Your task to perform on an android device: Empty the shopping cart on walmart.com. Image 0: 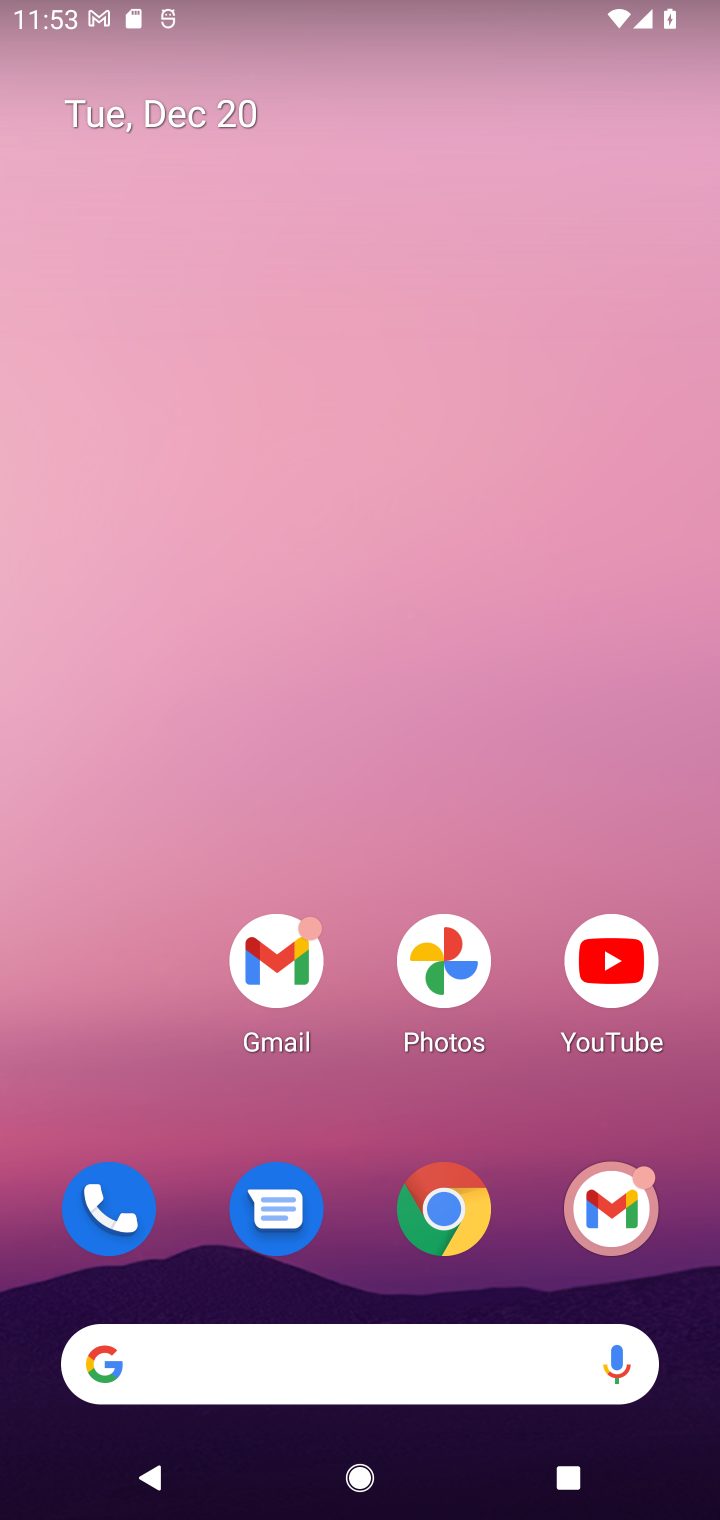
Step 0: click (458, 1233)
Your task to perform on an android device: Empty the shopping cart on walmart.com. Image 1: 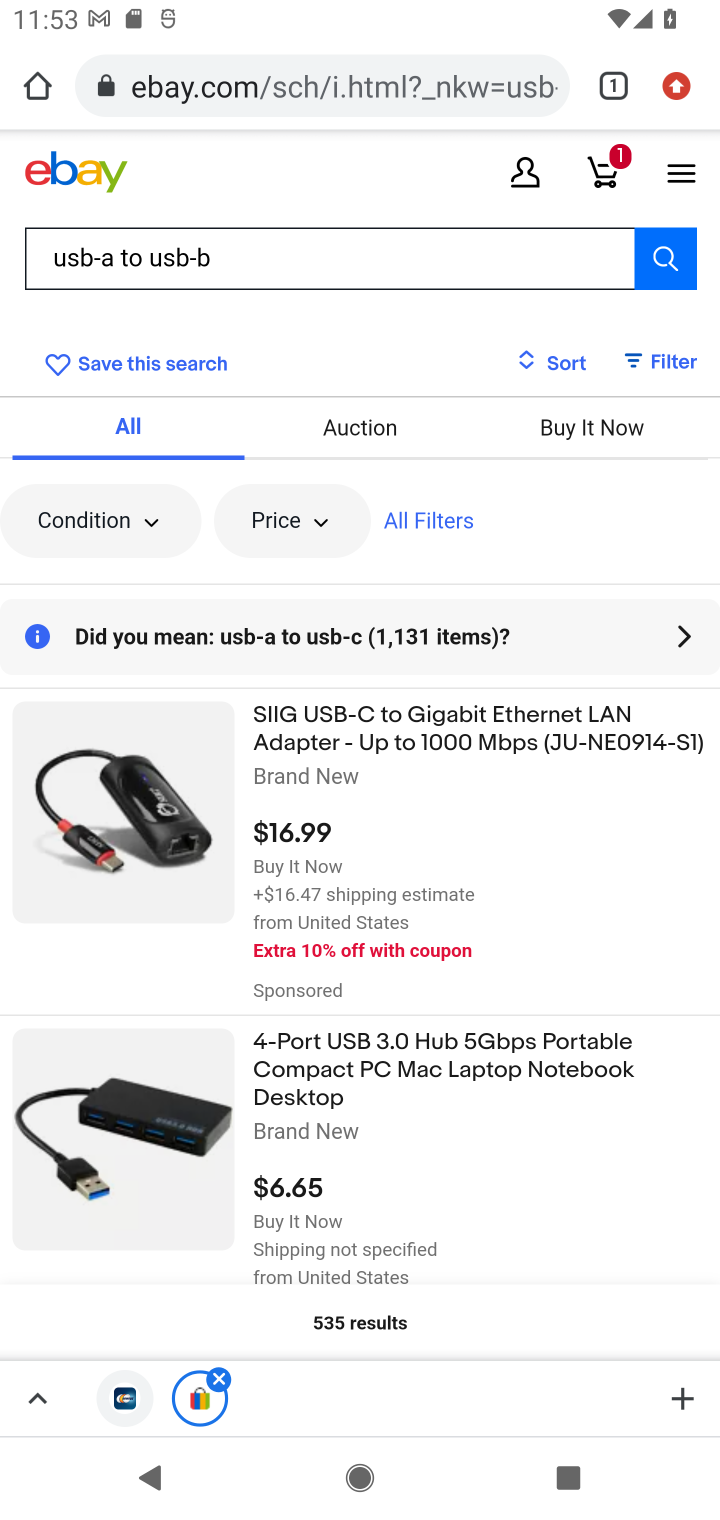
Step 1: click (239, 94)
Your task to perform on an android device: Empty the shopping cart on walmart.com. Image 2: 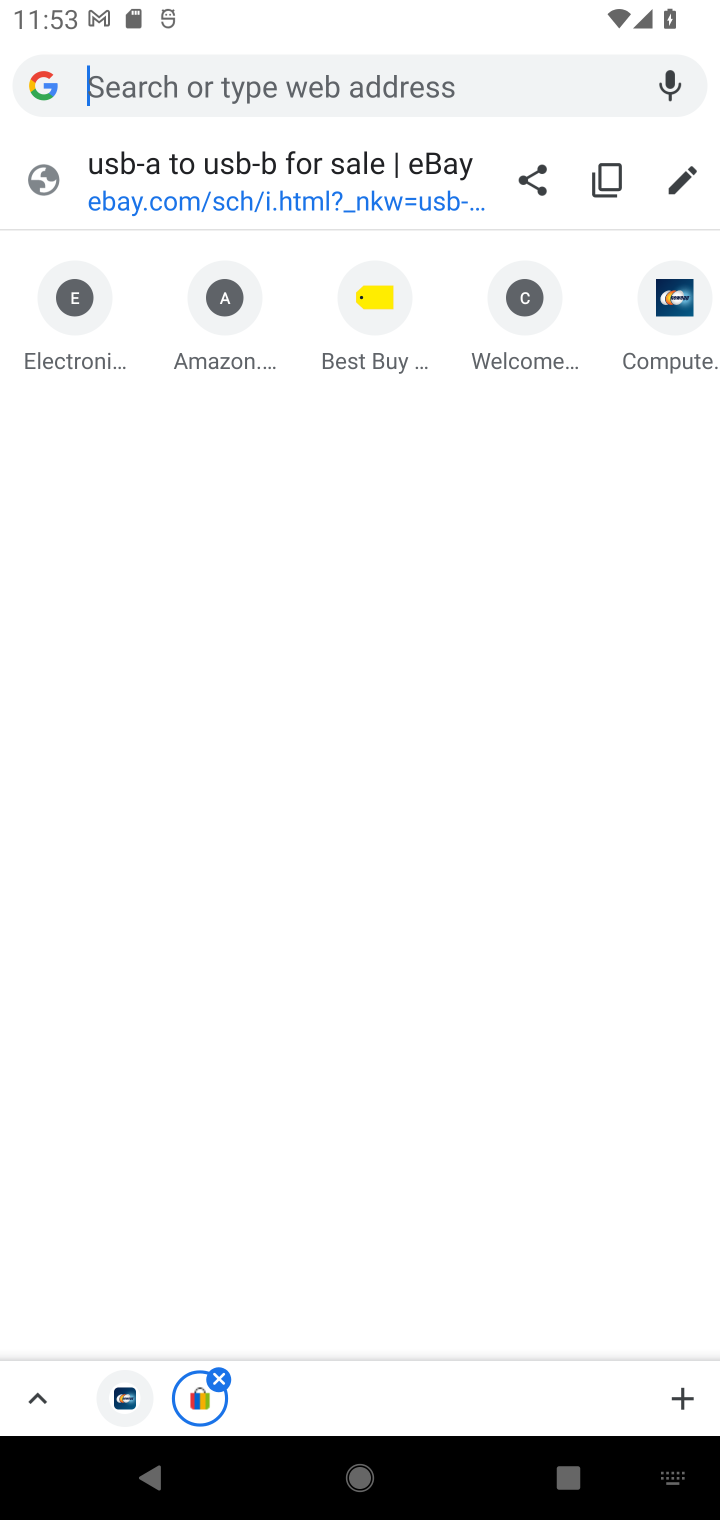
Step 2: type "walmart.com"
Your task to perform on an android device: Empty the shopping cart on walmart.com. Image 3: 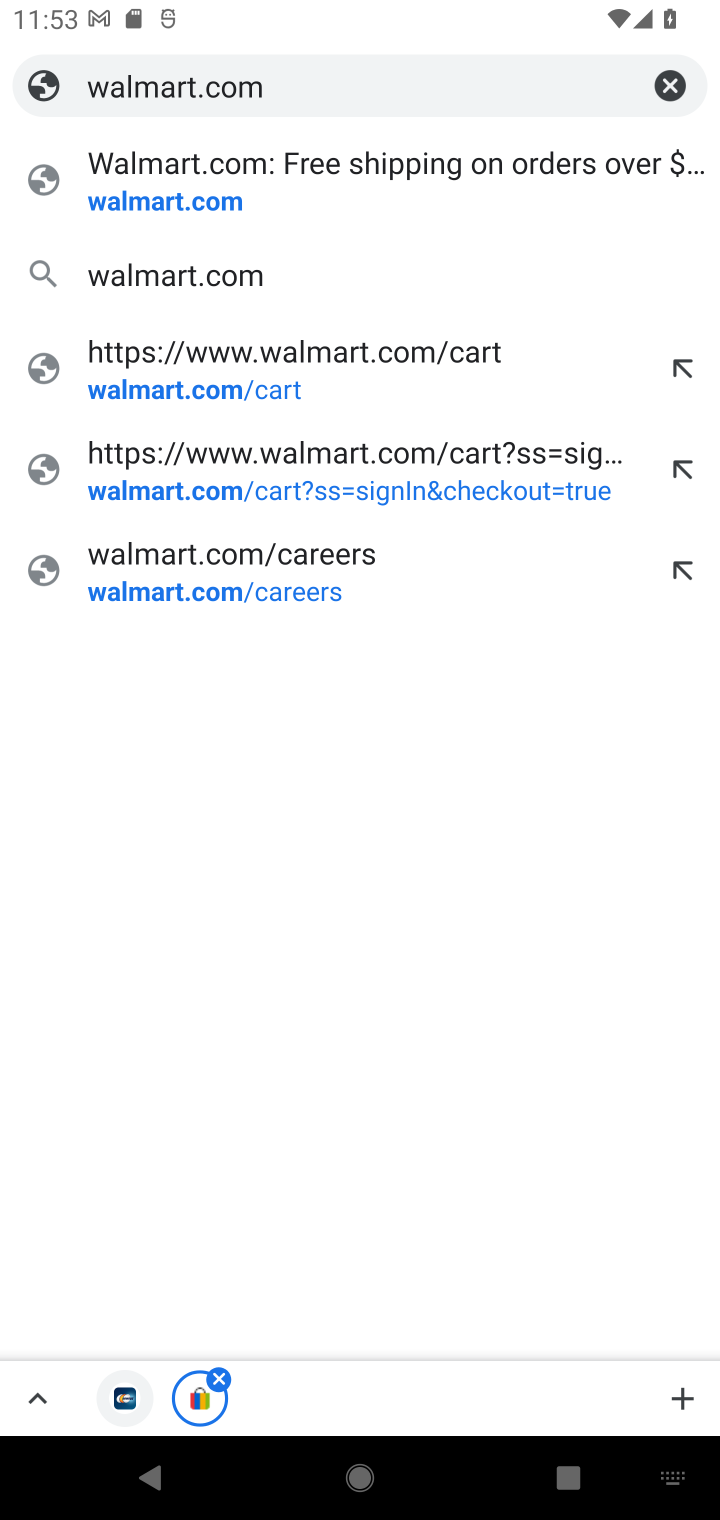
Step 3: click (170, 212)
Your task to perform on an android device: Empty the shopping cart on walmart.com. Image 4: 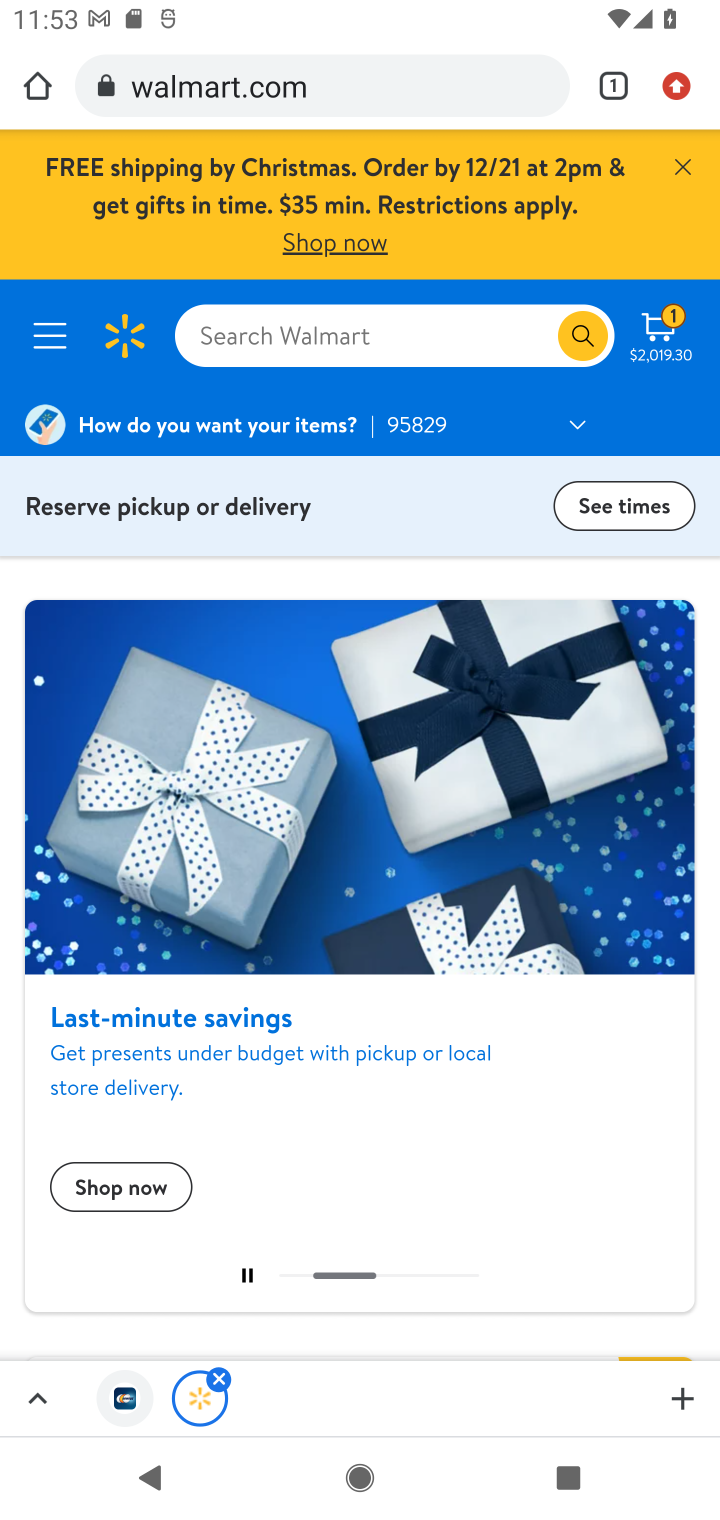
Step 4: click (676, 329)
Your task to perform on an android device: Empty the shopping cart on walmart.com. Image 5: 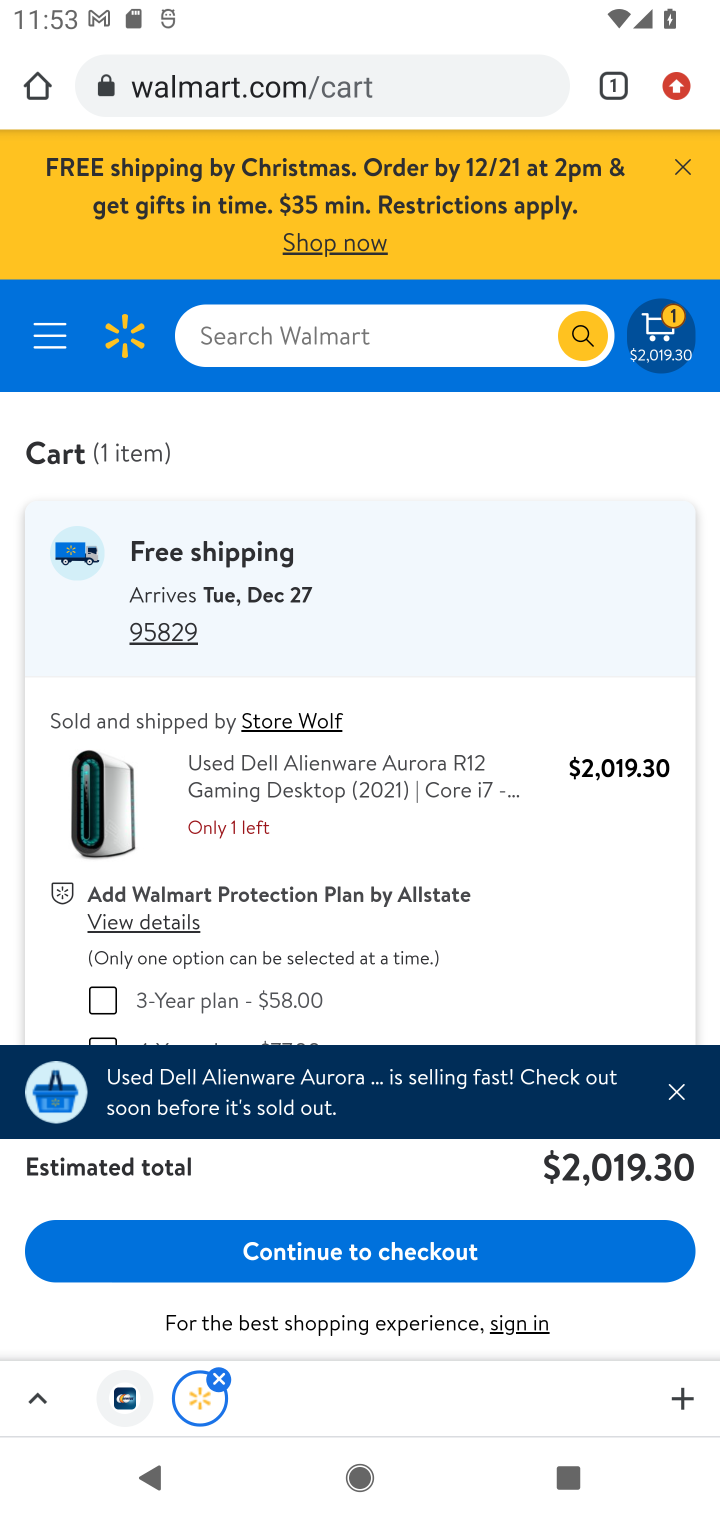
Step 5: drag from (338, 774) to (346, 311)
Your task to perform on an android device: Empty the shopping cart on walmart.com. Image 6: 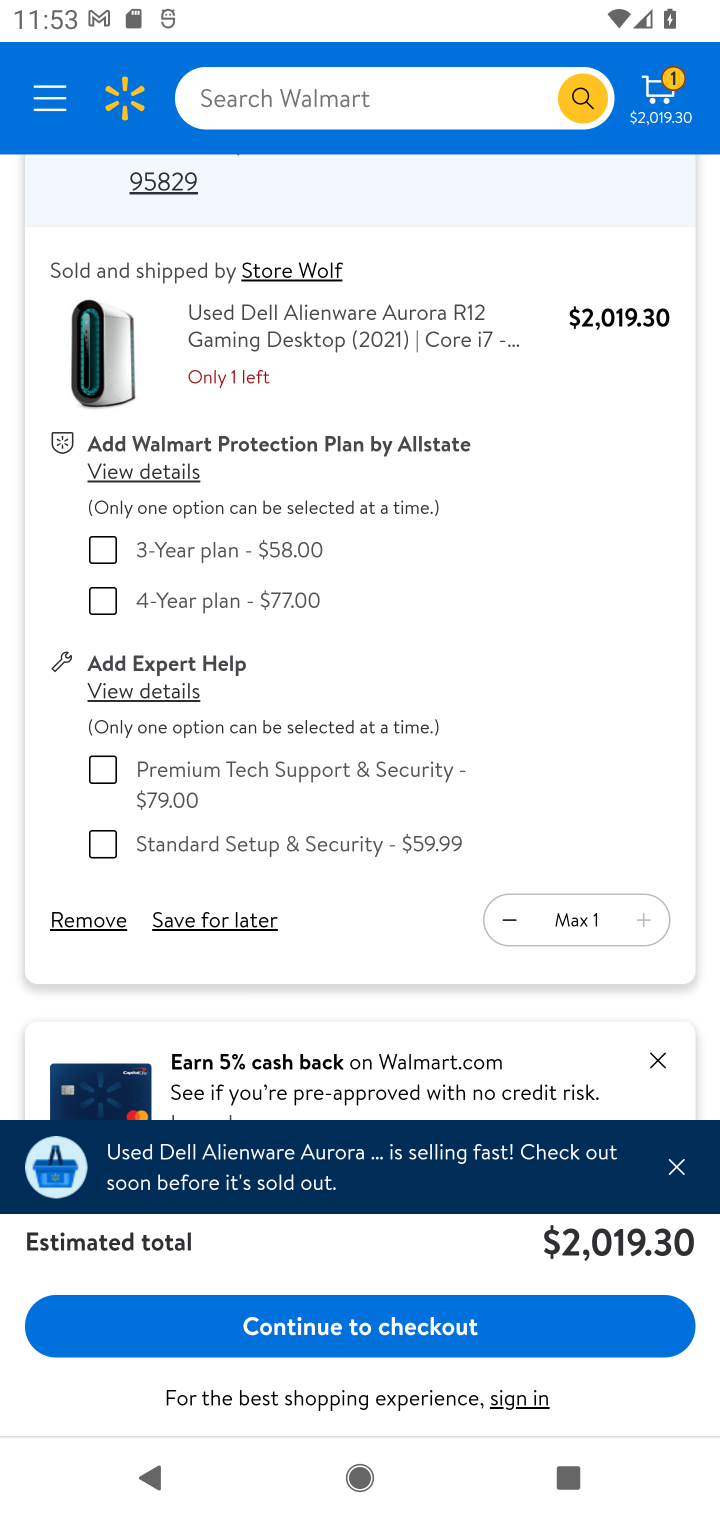
Step 6: click (81, 929)
Your task to perform on an android device: Empty the shopping cart on walmart.com. Image 7: 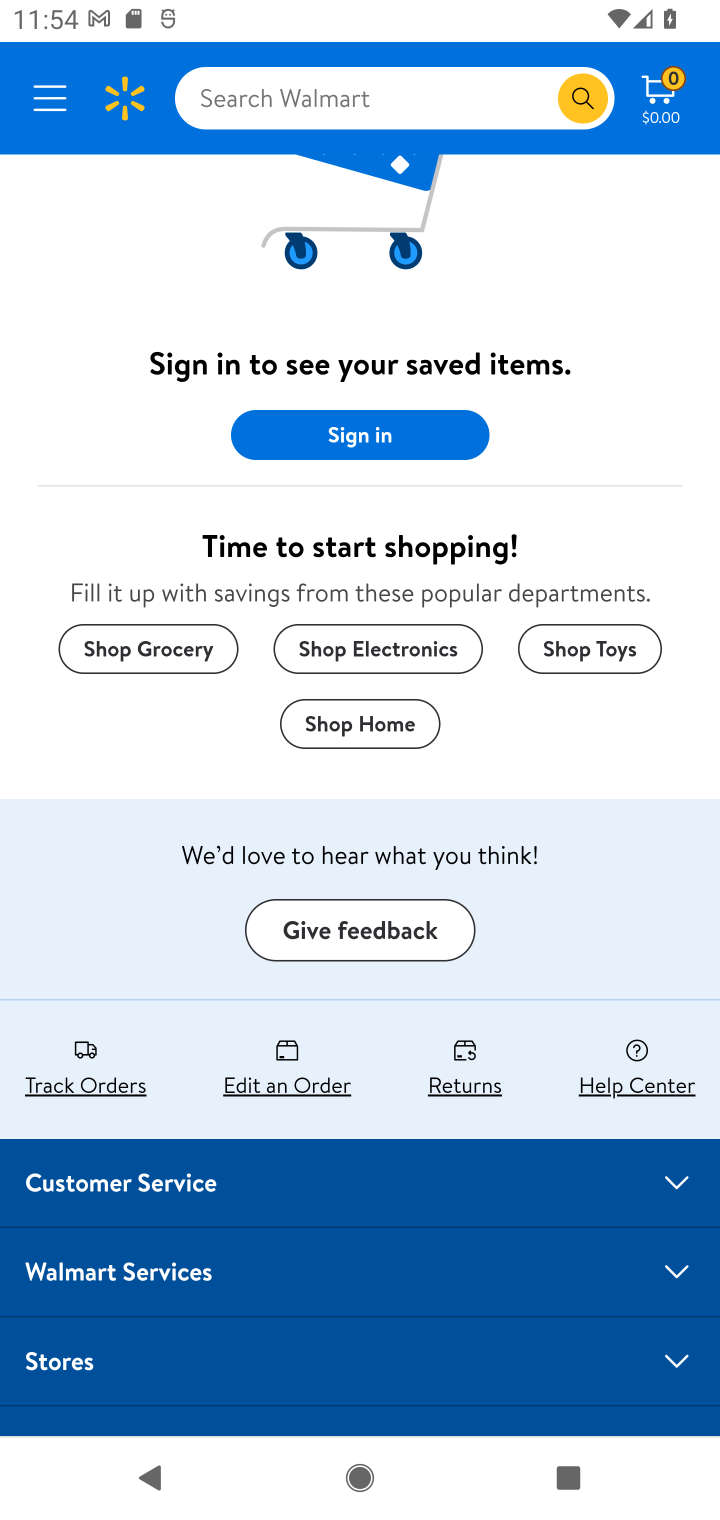
Step 7: task complete